Your task to perform on an android device: turn off javascript in the chrome app Image 0: 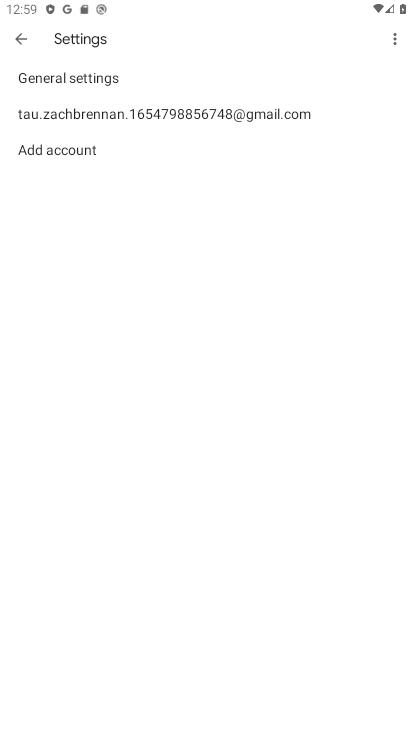
Step 0: press home button
Your task to perform on an android device: turn off javascript in the chrome app Image 1: 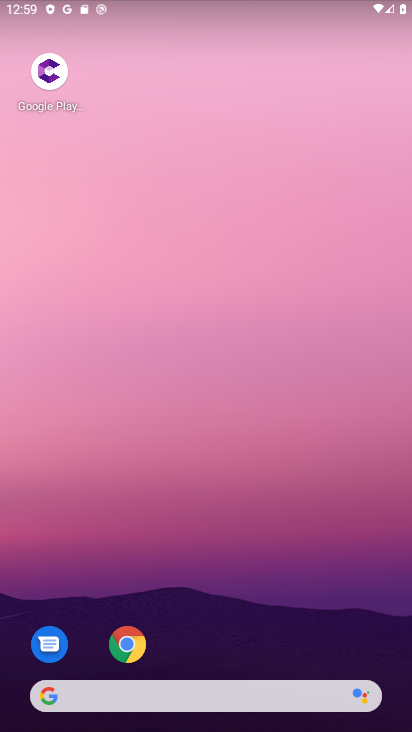
Step 1: drag from (201, 672) to (287, 31)
Your task to perform on an android device: turn off javascript in the chrome app Image 2: 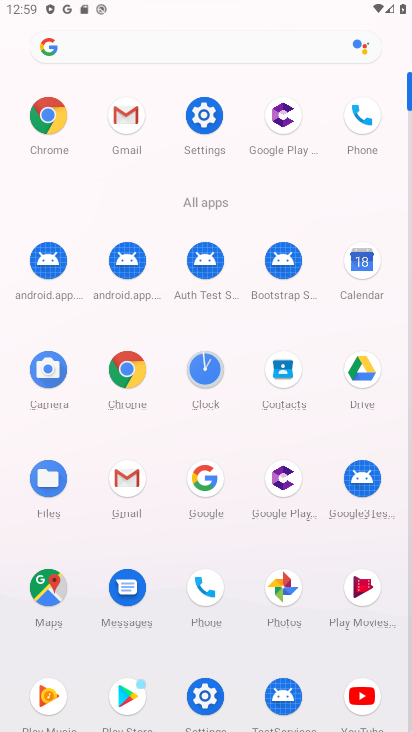
Step 2: click (135, 375)
Your task to perform on an android device: turn off javascript in the chrome app Image 3: 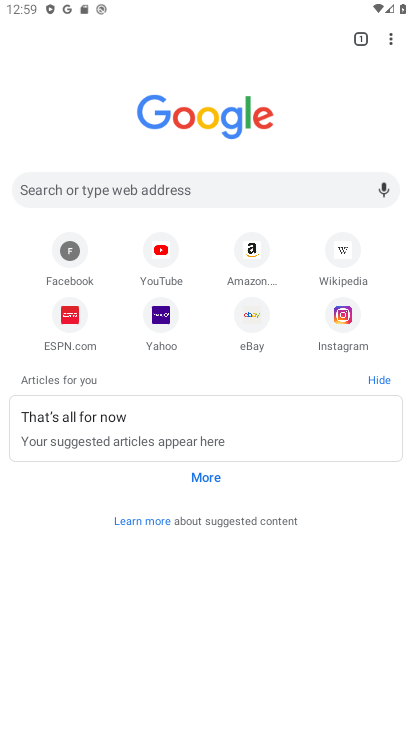
Step 3: drag from (390, 33) to (261, 328)
Your task to perform on an android device: turn off javascript in the chrome app Image 4: 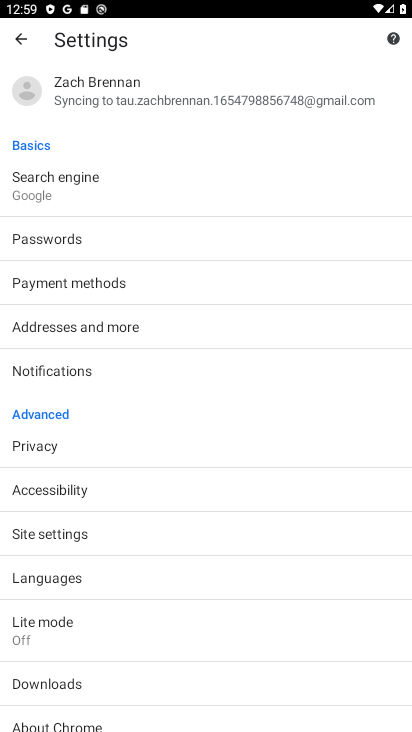
Step 4: click (135, 538)
Your task to perform on an android device: turn off javascript in the chrome app Image 5: 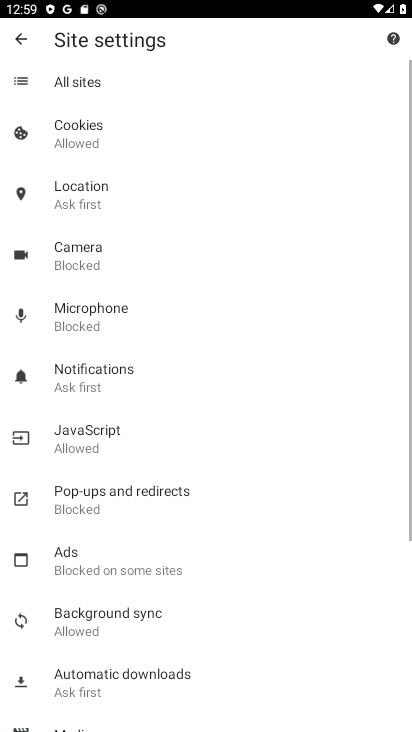
Step 5: click (148, 436)
Your task to perform on an android device: turn off javascript in the chrome app Image 6: 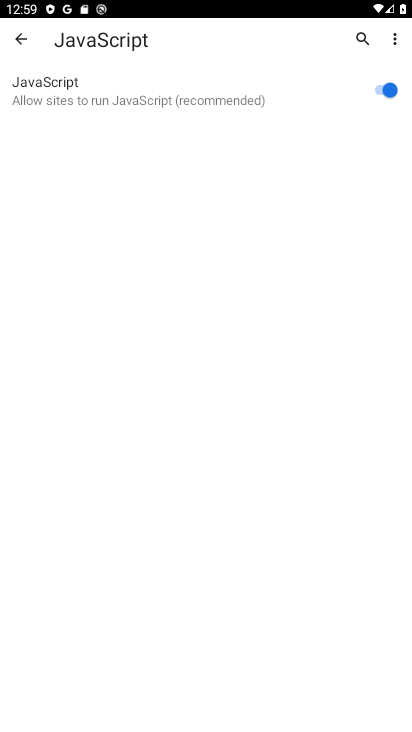
Step 6: click (380, 76)
Your task to perform on an android device: turn off javascript in the chrome app Image 7: 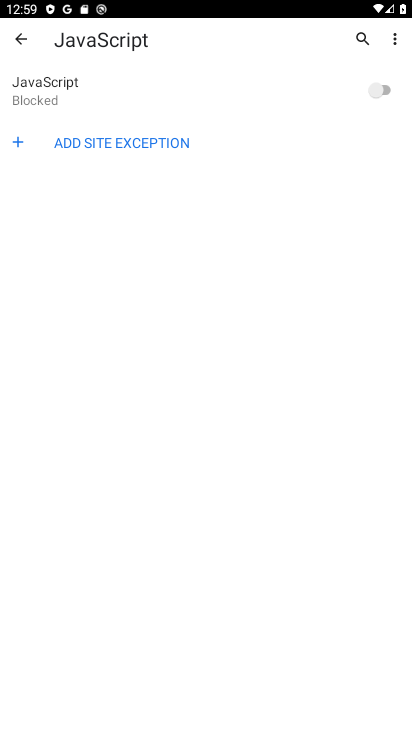
Step 7: task complete